Your task to perform on an android device: Open settings Image 0: 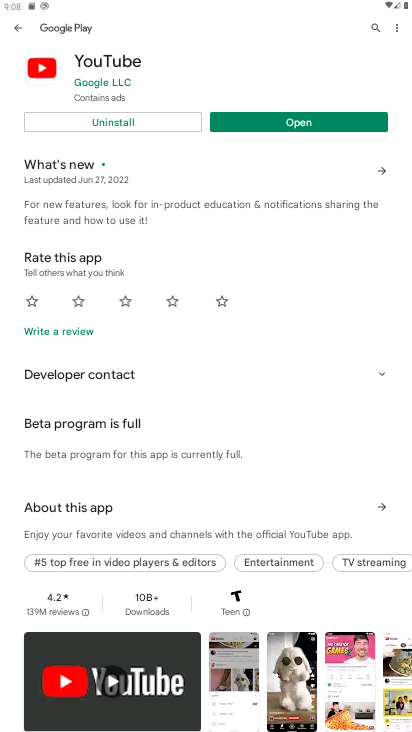
Step 0: press home button
Your task to perform on an android device: Open settings Image 1: 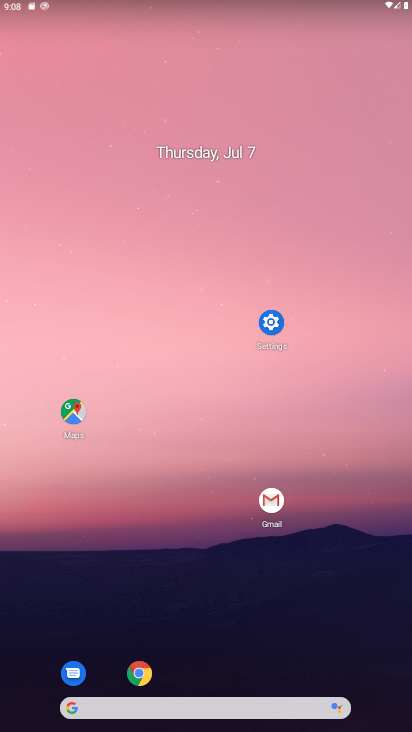
Step 1: click (271, 317)
Your task to perform on an android device: Open settings Image 2: 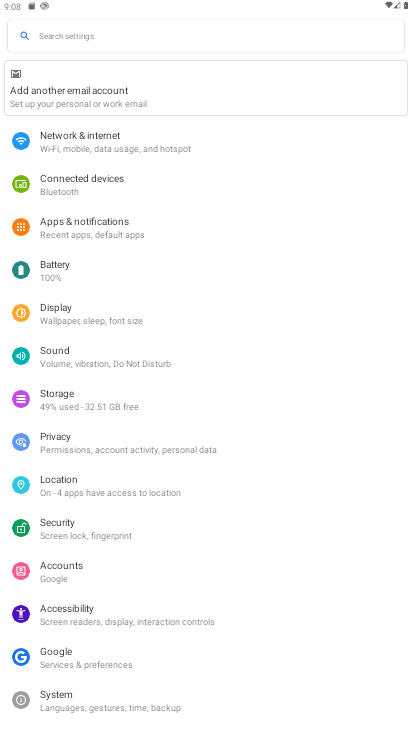
Step 2: task complete